Your task to perform on an android device: Go to Android settings Image 0: 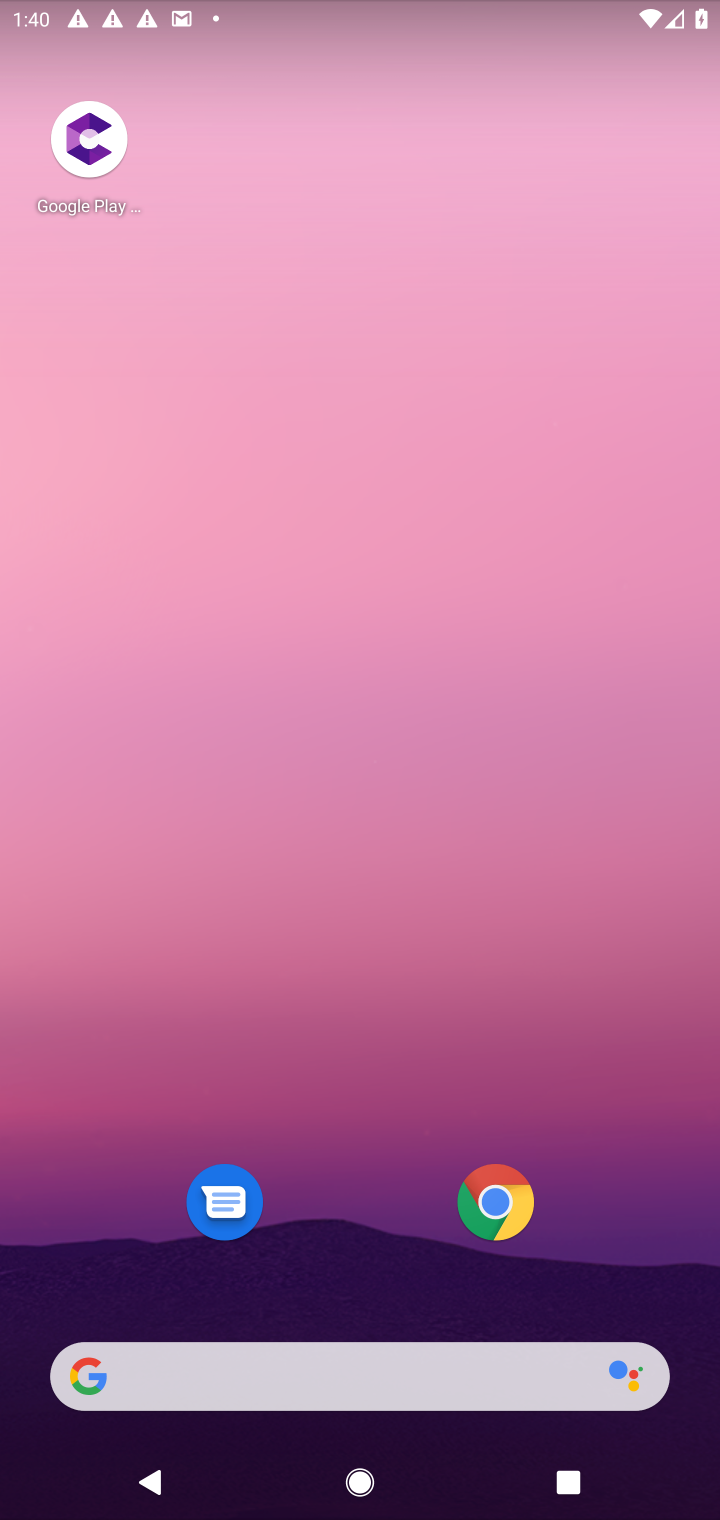
Step 0: click (468, 1209)
Your task to perform on an android device: Go to Android settings Image 1: 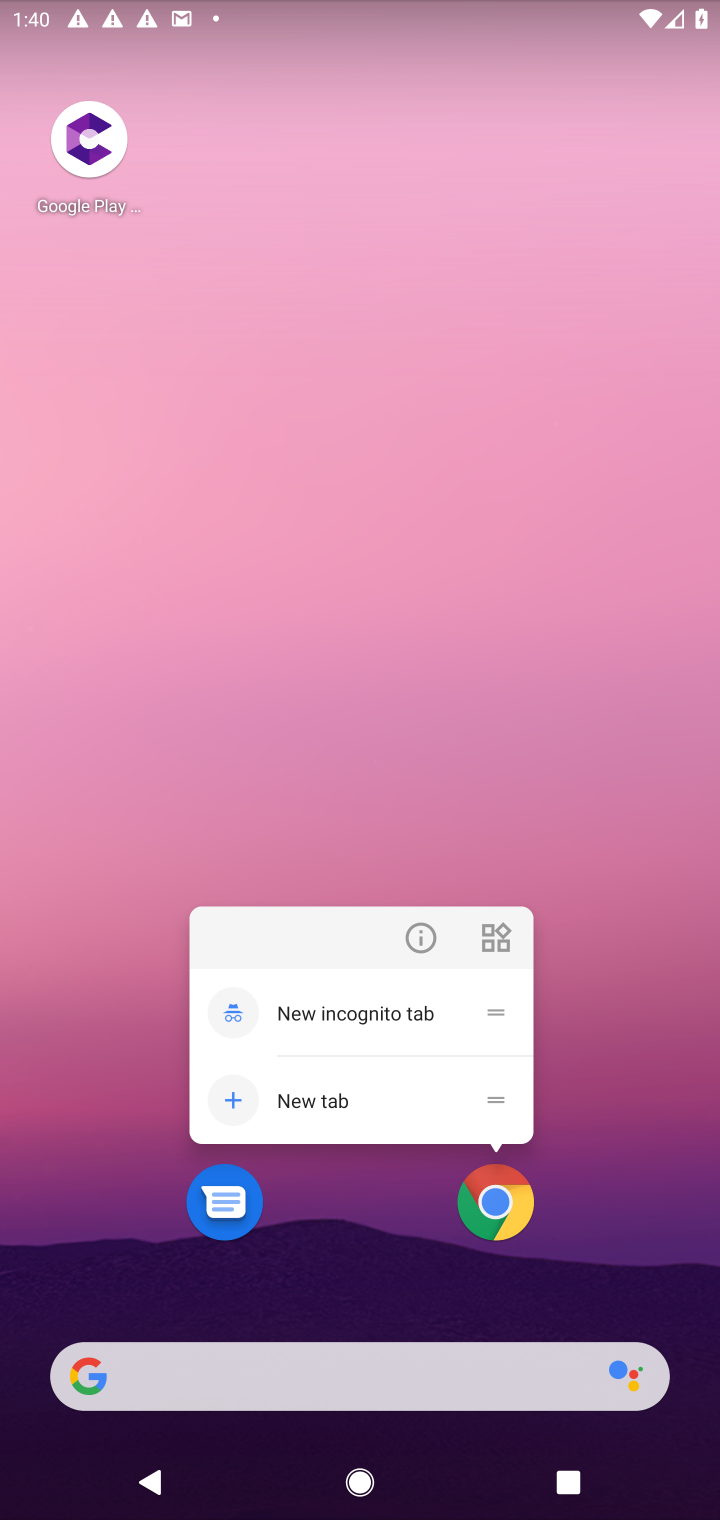
Step 1: drag from (308, 1350) to (343, 334)
Your task to perform on an android device: Go to Android settings Image 2: 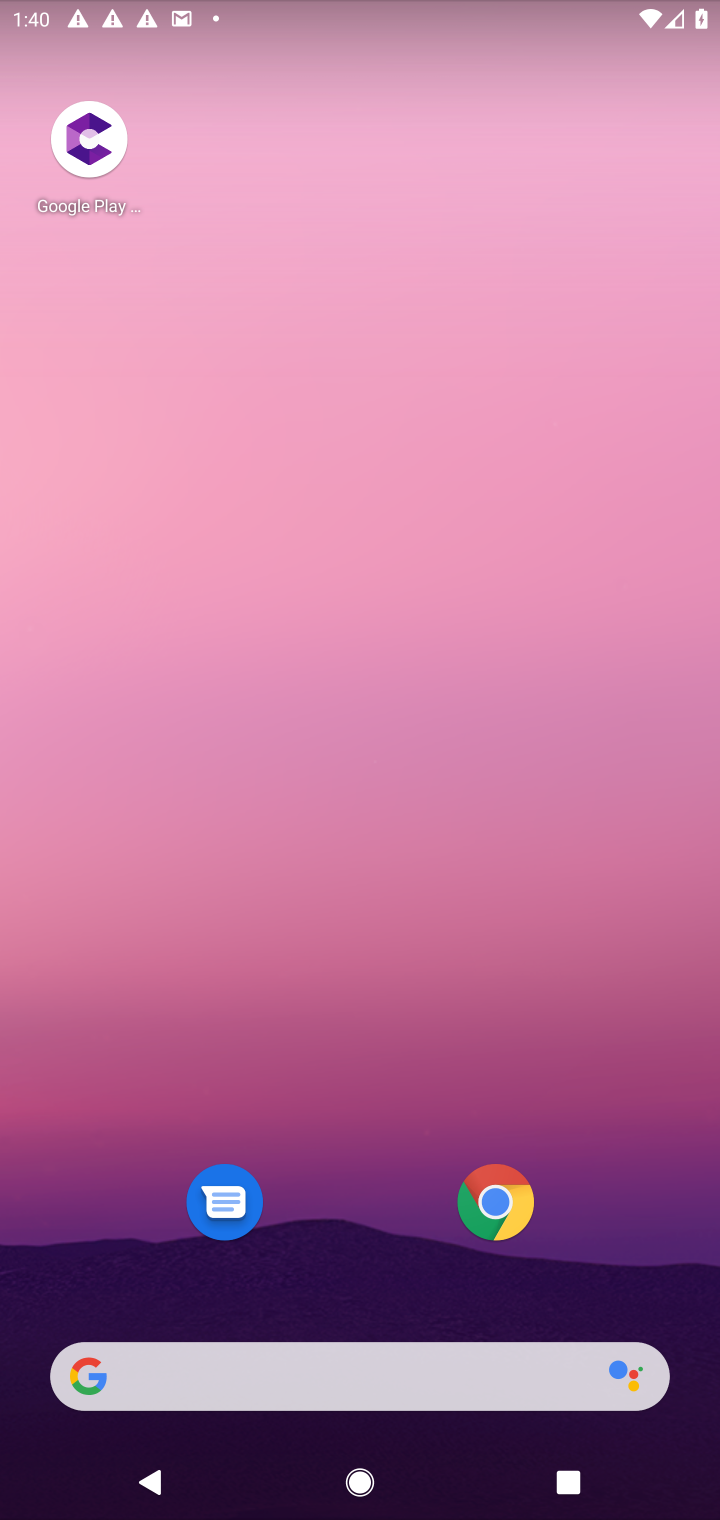
Step 2: drag from (452, 1330) to (432, 487)
Your task to perform on an android device: Go to Android settings Image 3: 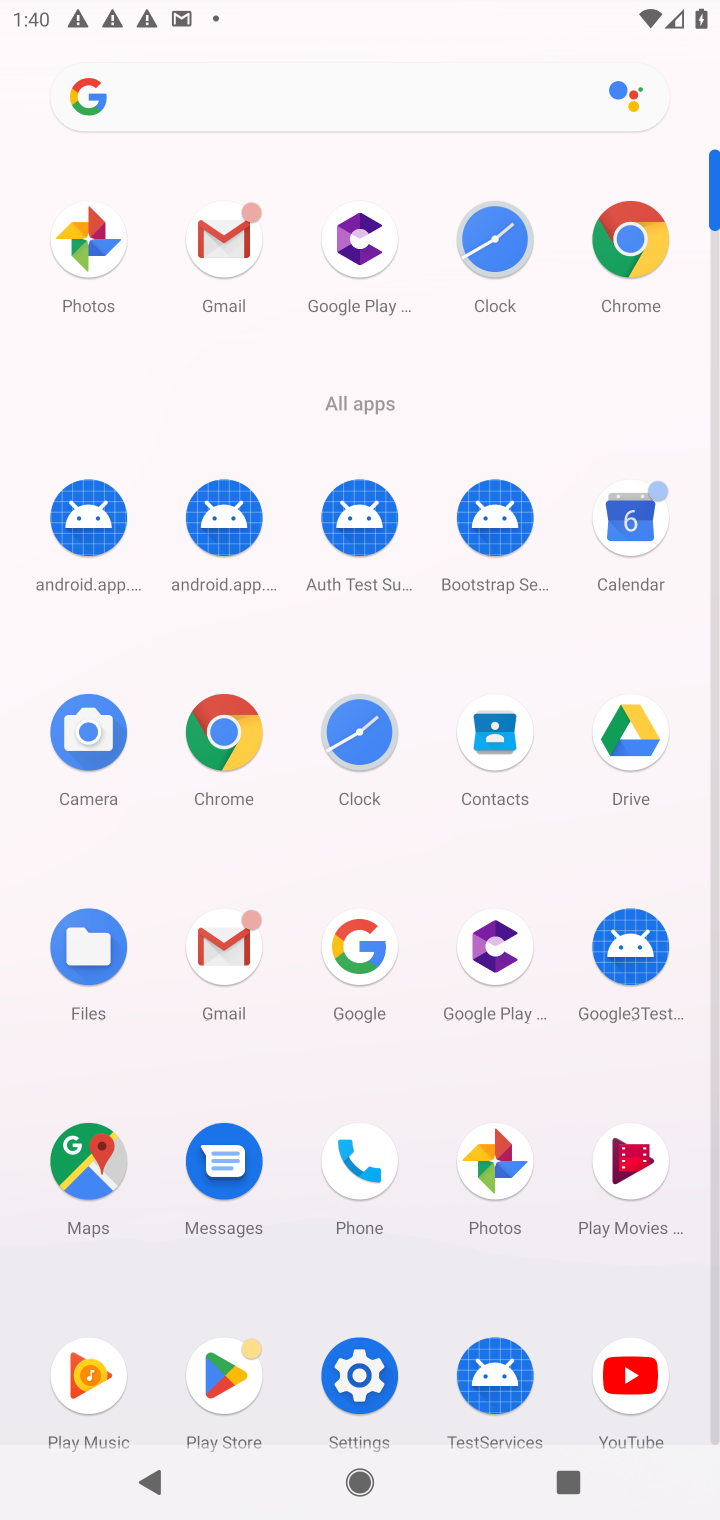
Step 3: click (377, 1363)
Your task to perform on an android device: Go to Android settings Image 4: 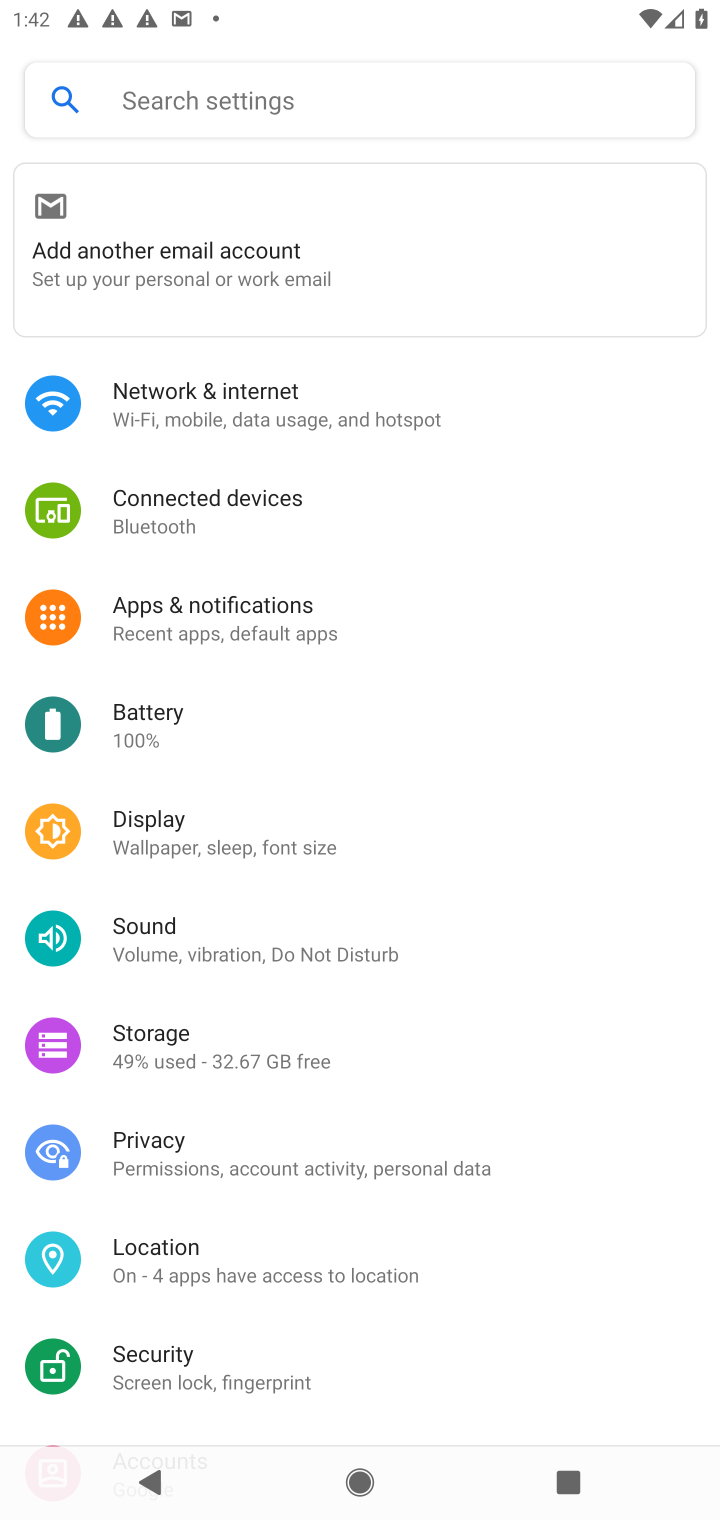
Step 4: task complete